Your task to perform on an android device: Show me productivity apps on the Play Store Image 0: 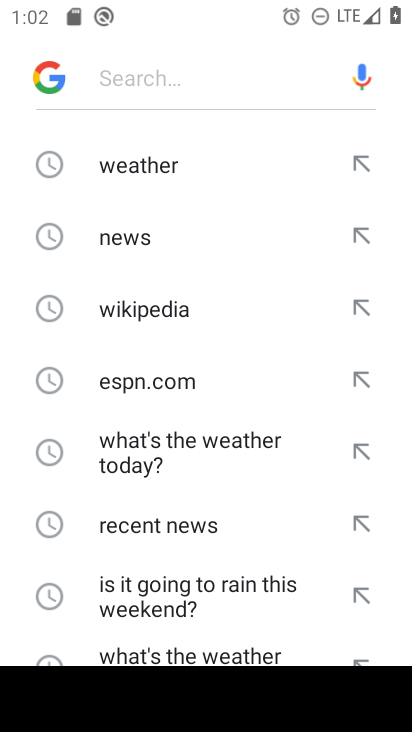
Step 0: press home button
Your task to perform on an android device: Show me productivity apps on the Play Store Image 1: 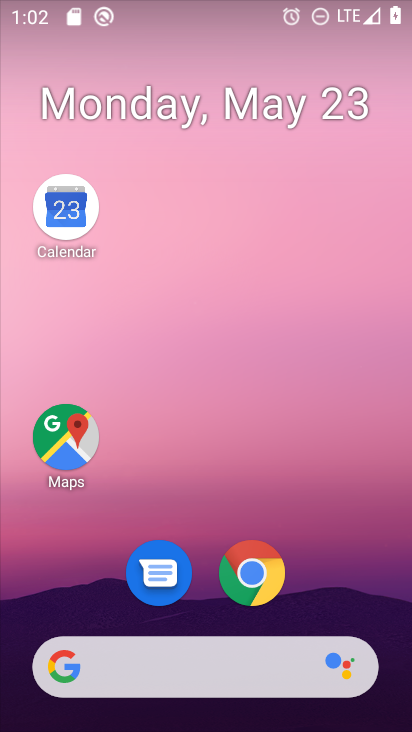
Step 1: drag from (327, 602) to (247, 111)
Your task to perform on an android device: Show me productivity apps on the Play Store Image 2: 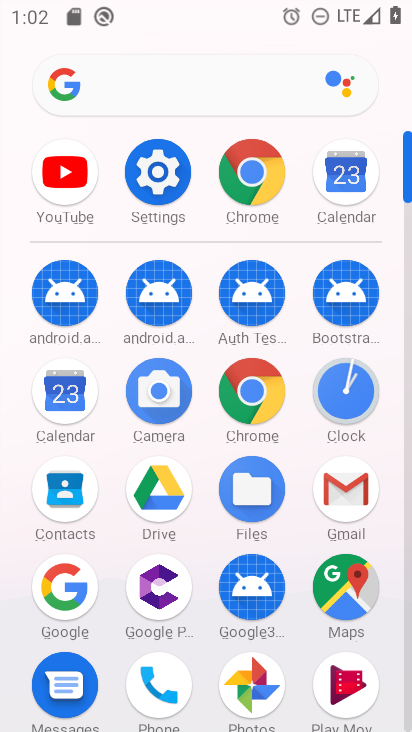
Step 2: drag from (271, 642) to (221, 260)
Your task to perform on an android device: Show me productivity apps on the Play Store Image 3: 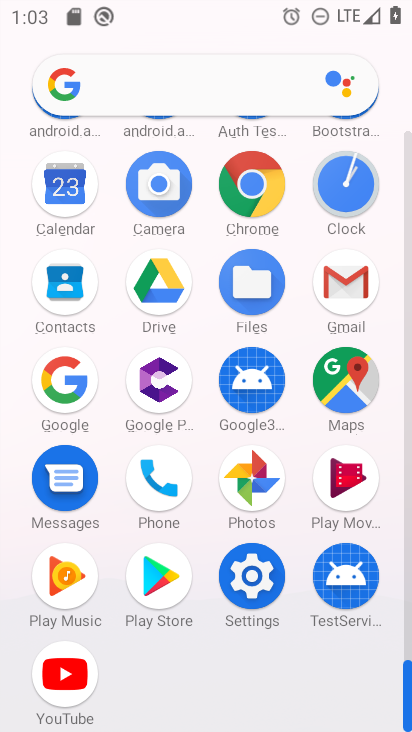
Step 3: click (160, 593)
Your task to perform on an android device: Show me productivity apps on the Play Store Image 4: 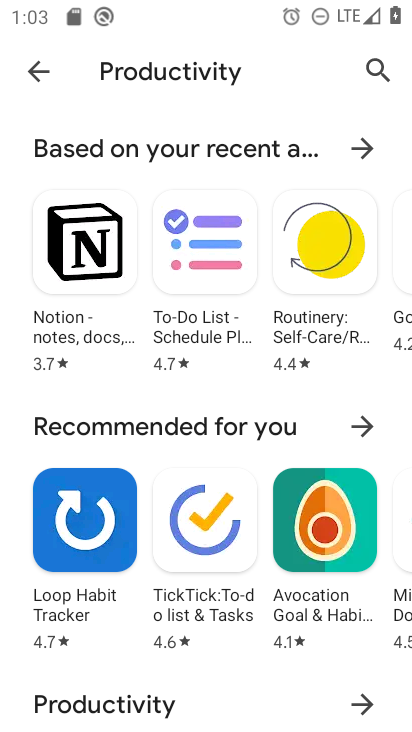
Step 4: task complete